Your task to perform on an android device: Open accessibility settings Image 0: 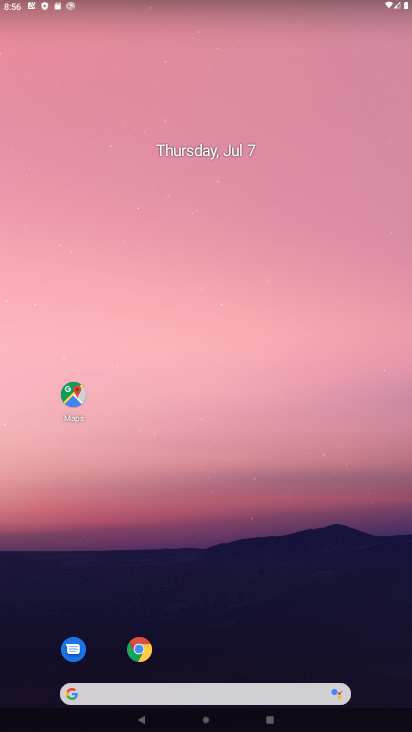
Step 0: drag from (228, 694) to (231, 111)
Your task to perform on an android device: Open accessibility settings Image 1: 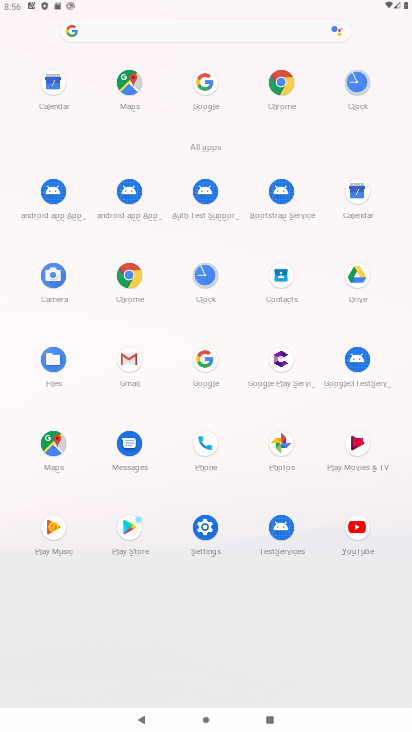
Step 1: click (198, 535)
Your task to perform on an android device: Open accessibility settings Image 2: 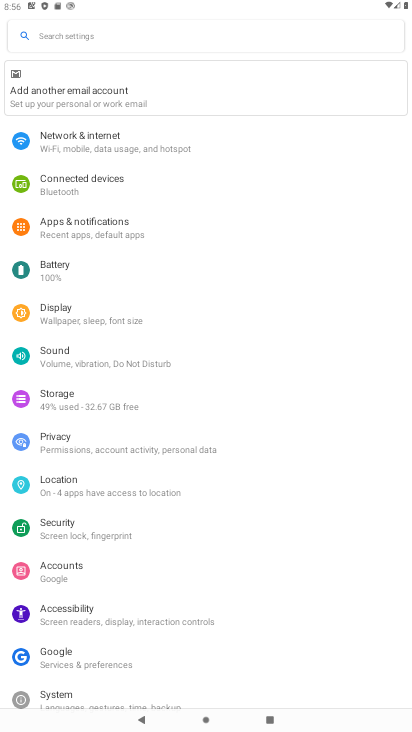
Step 2: click (39, 619)
Your task to perform on an android device: Open accessibility settings Image 3: 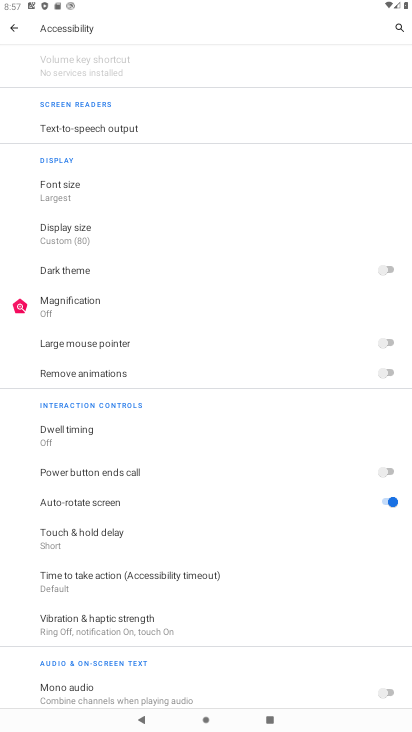
Step 3: task complete